Your task to perform on an android device: Check the settings for the Amazon Prime Video app Image 0: 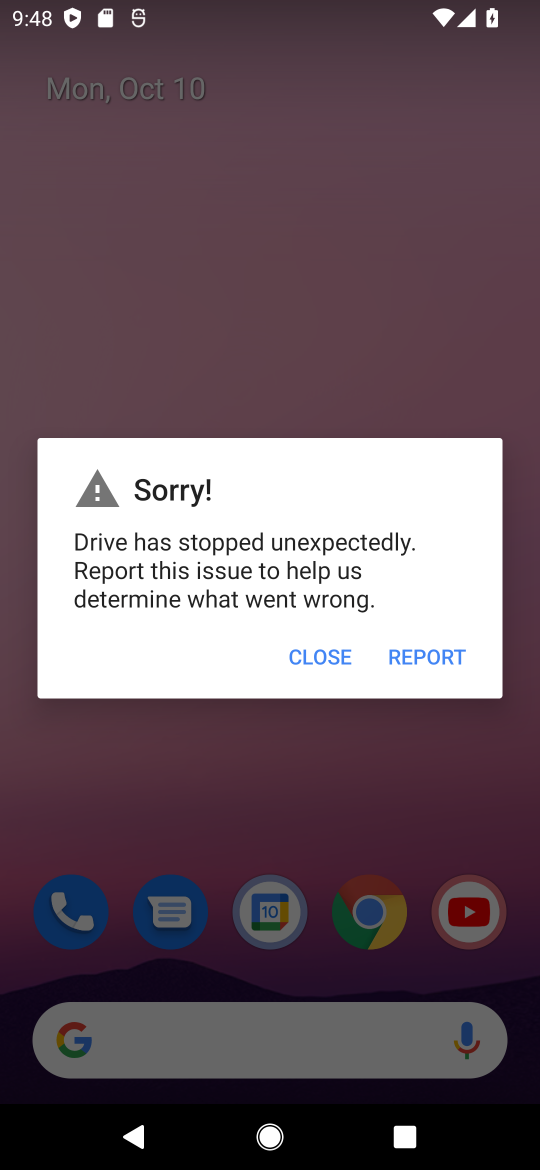
Step 0: task impossible